Your task to perform on an android device: Open eBay Image 0: 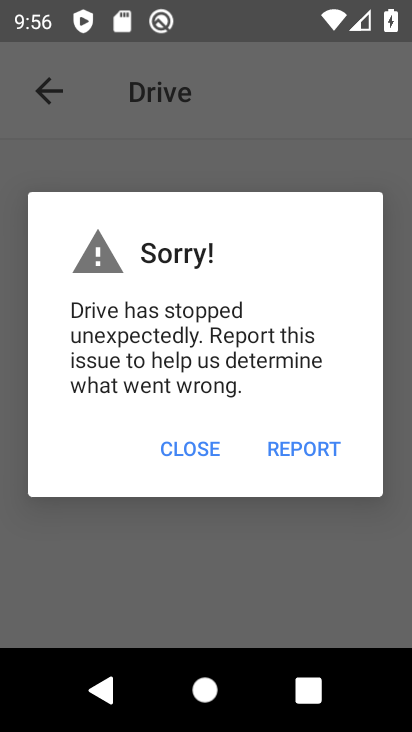
Step 0: press home button
Your task to perform on an android device: Open eBay Image 1: 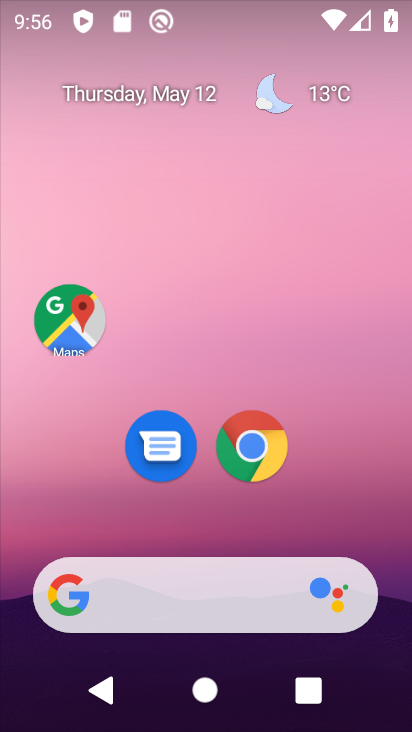
Step 1: click (181, 596)
Your task to perform on an android device: Open eBay Image 2: 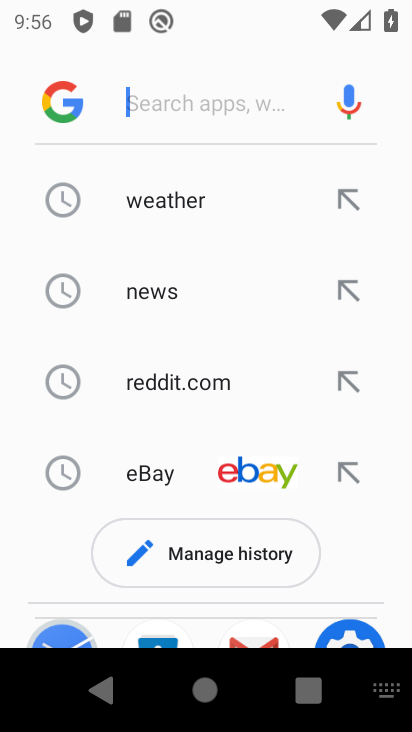
Step 2: click (246, 472)
Your task to perform on an android device: Open eBay Image 3: 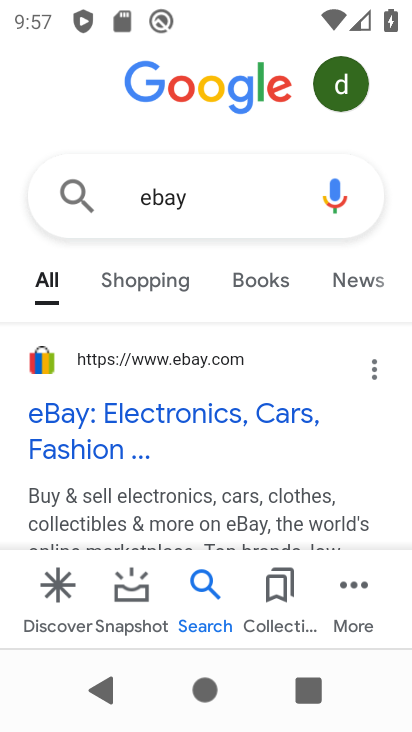
Step 3: click (64, 412)
Your task to perform on an android device: Open eBay Image 4: 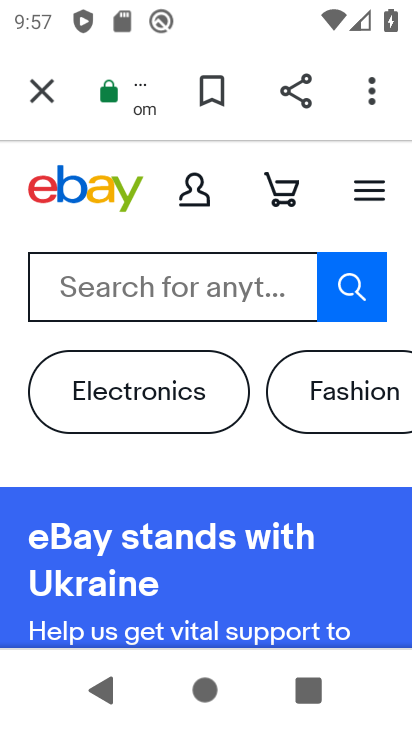
Step 4: task complete